Your task to perform on an android device: move a message to another label in the gmail app Image 0: 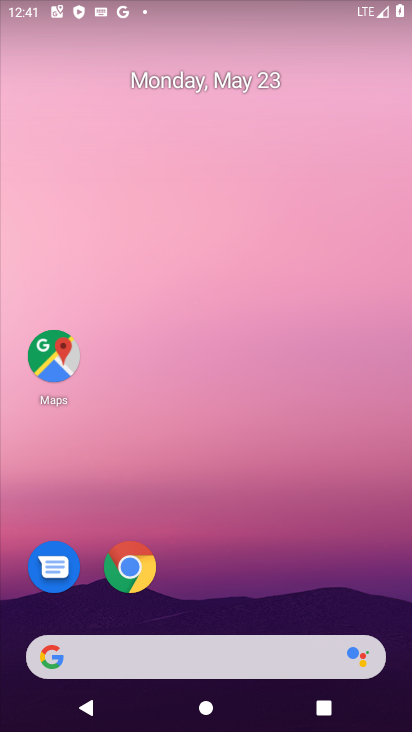
Step 0: drag from (224, 600) to (210, 272)
Your task to perform on an android device: move a message to another label in the gmail app Image 1: 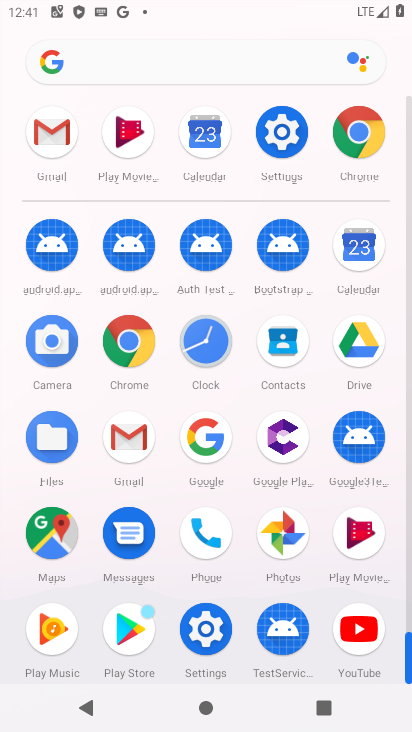
Step 1: click (135, 459)
Your task to perform on an android device: move a message to another label in the gmail app Image 2: 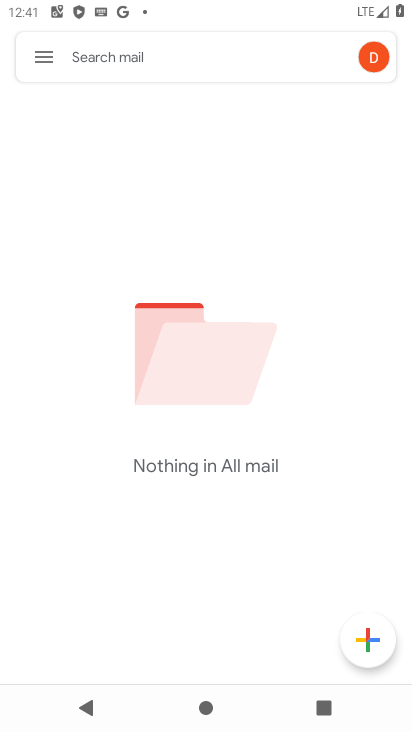
Step 2: task complete